Your task to perform on an android device: Open Reddit.com Image 0: 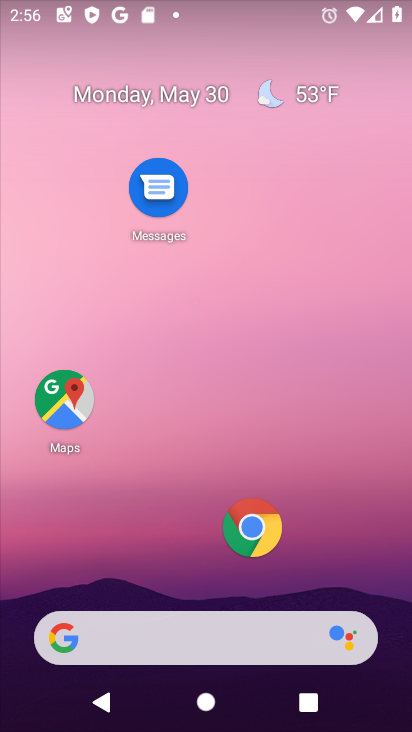
Step 0: drag from (156, 561) to (310, 174)
Your task to perform on an android device: Open Reddit.com Image 1: 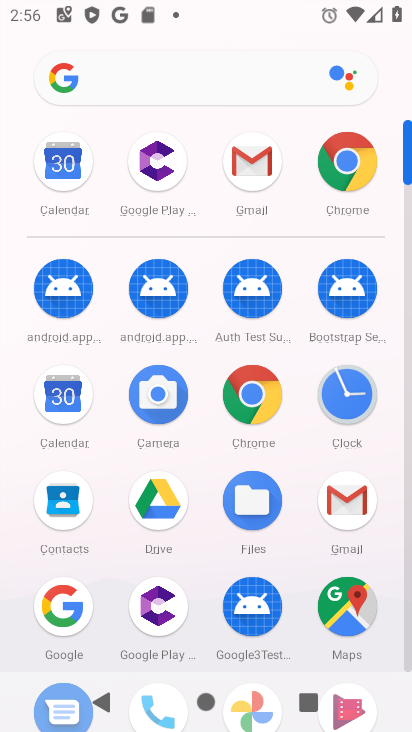
Step 1: click (246, 424)
Your task to perform on an android device: Open Reddit.com Image 2: 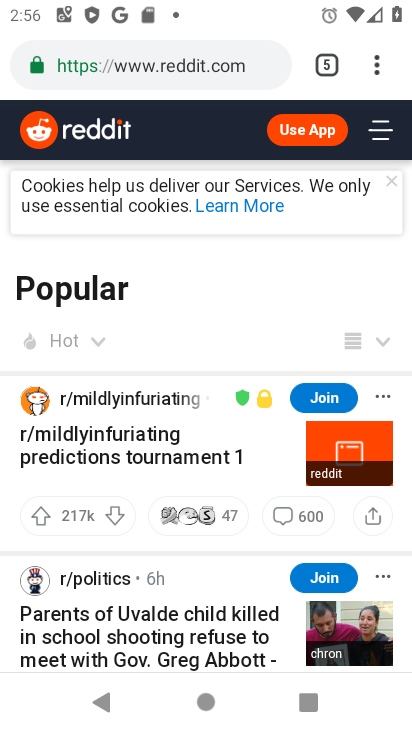
Step 2: task complete